Your task to perform on an android device: Install the CNN app Image 0: 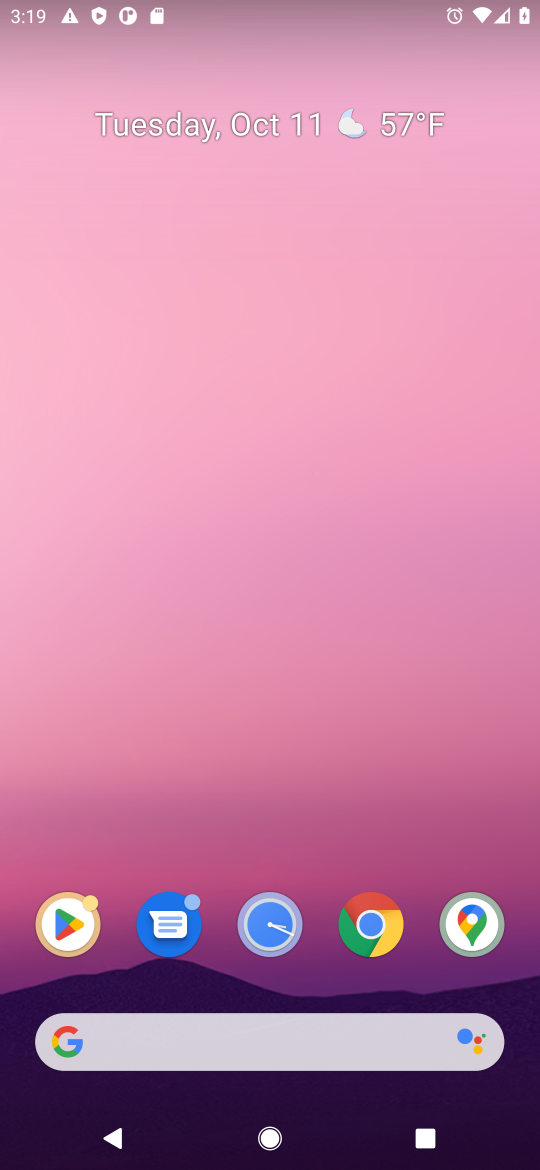
Step 0: drag from (373, 266) to (407, 62)
Your task to perform on an android device: Install the CNN app Image 1: 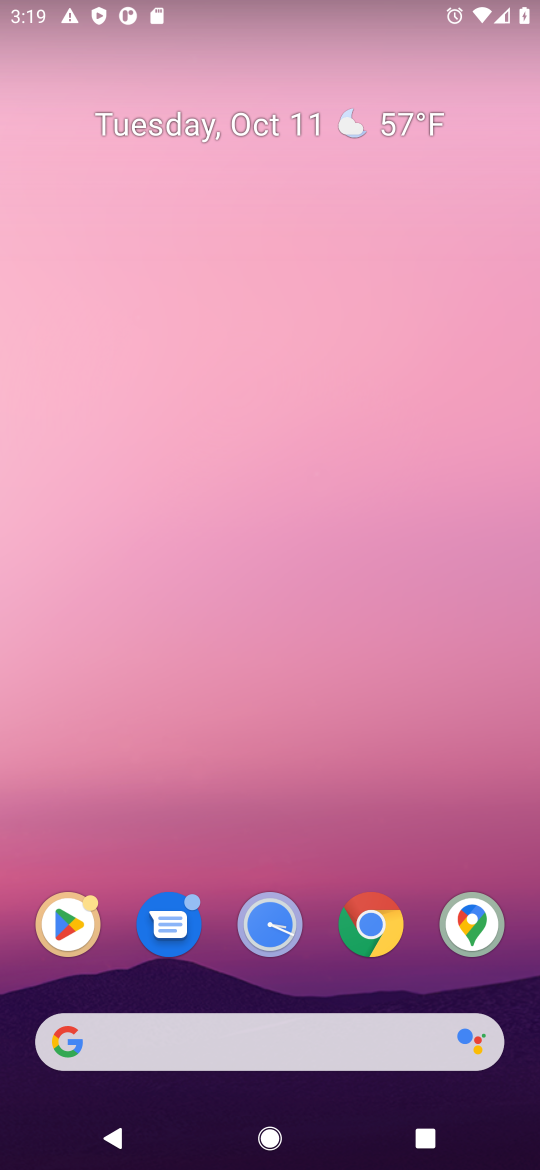
Step 1: click (377, 921)
Your task to perform on an android device: Install the CNN app Image 2: 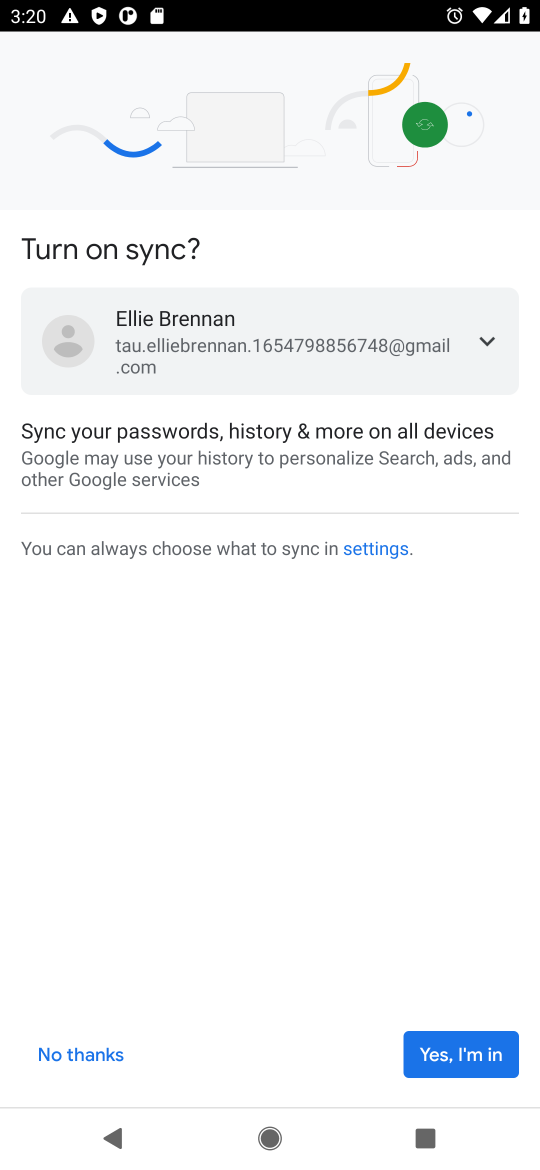
Step 2: click (503, 1039)
Your task to perform on an android device: Install the CNN app Image 3: 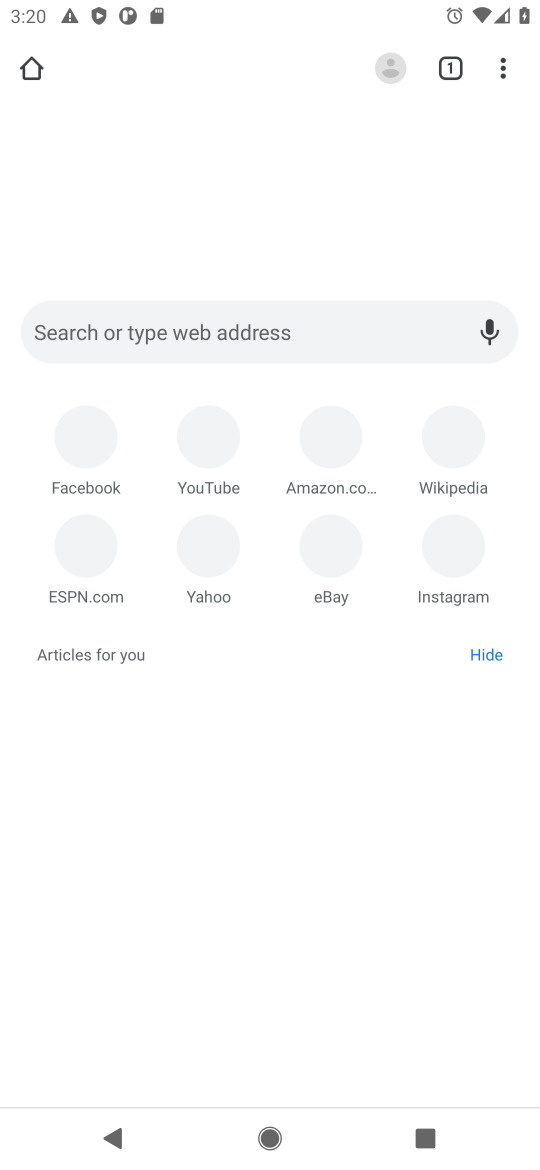
Step 3: press home button
Your task to perform on an android device: Install the CNN app Image 4: 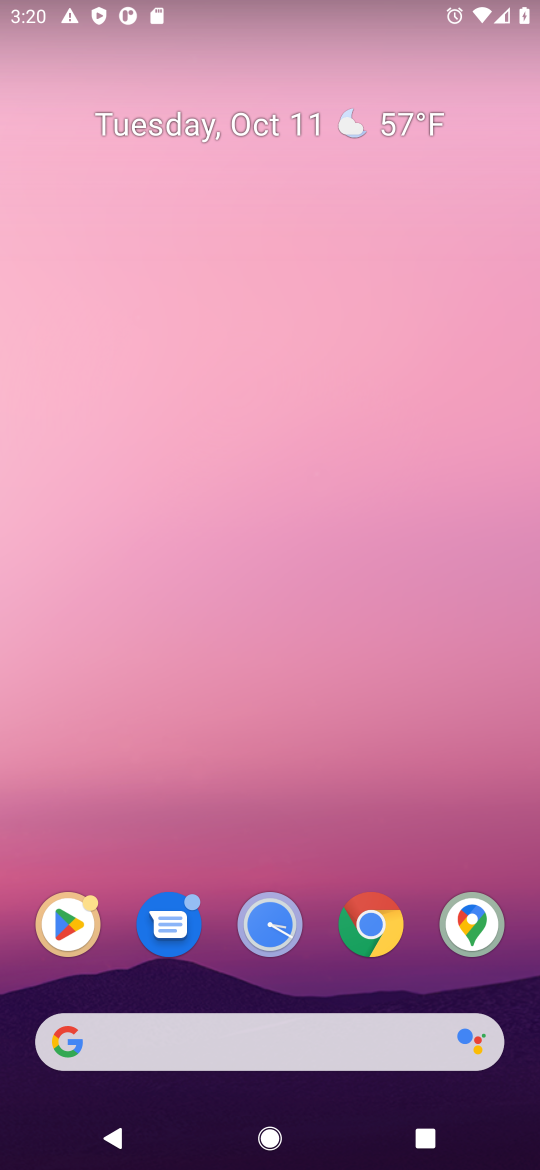
Step 4: drag from (321, 1000) to (327, 40)
Your task to perform on an android device: Install the CNN app Image 5: 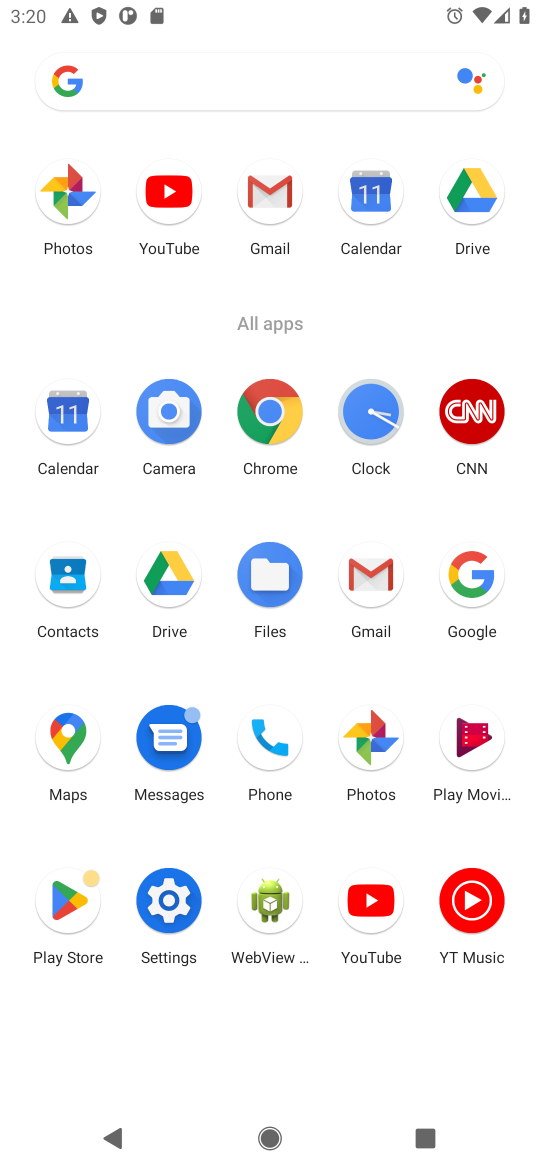
Step 5: click (71, 909)
Your task to perform on an android device: Install the CNN app Image 6: 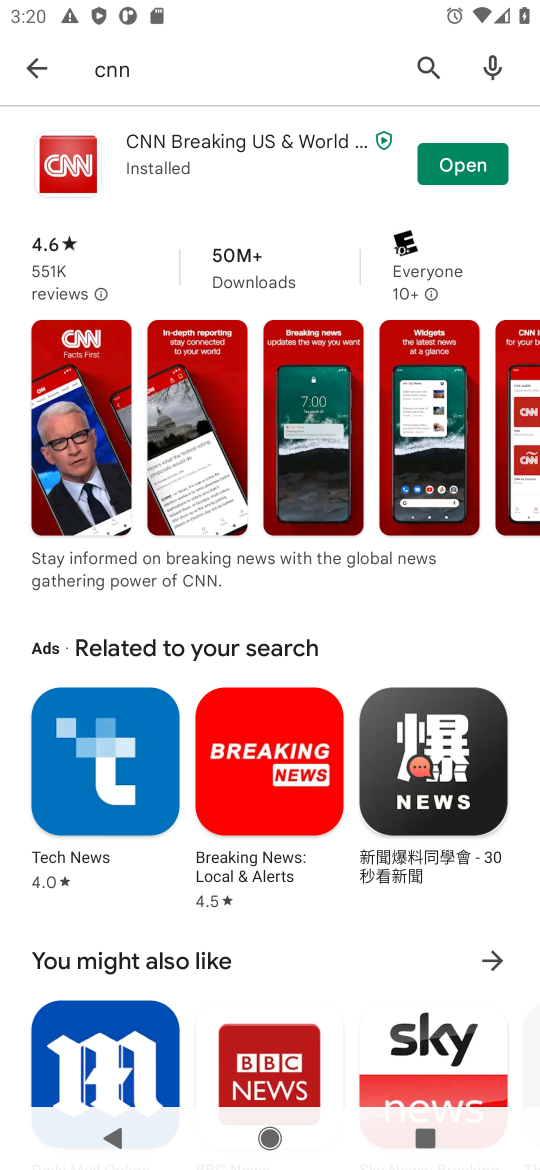
Step 6: task complete